Your task to perform on an android device: Open Android settings Image 0: 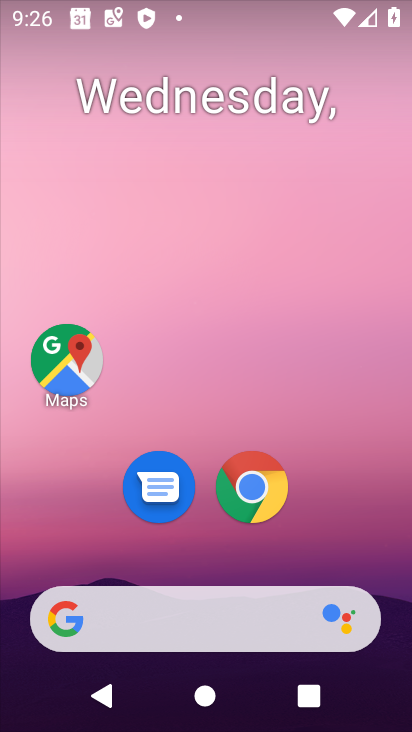
Step 0: press home button
Your task to perform on an android device: Open Android settings Image 1: 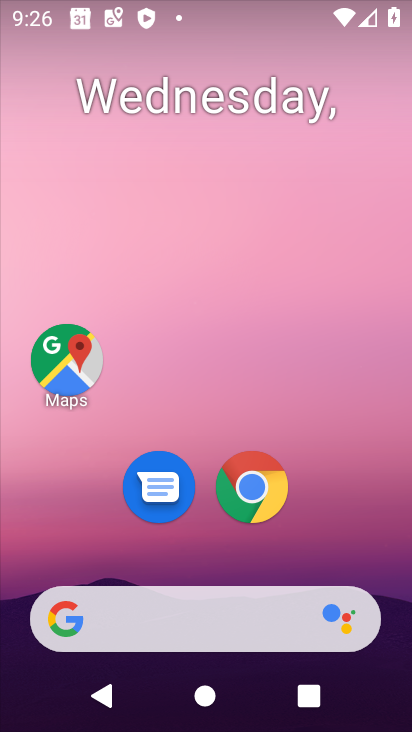
Step 1: drag from (314, 642) to (199, 194)
Your task to perform on an android device: Open Android settings Image 2: 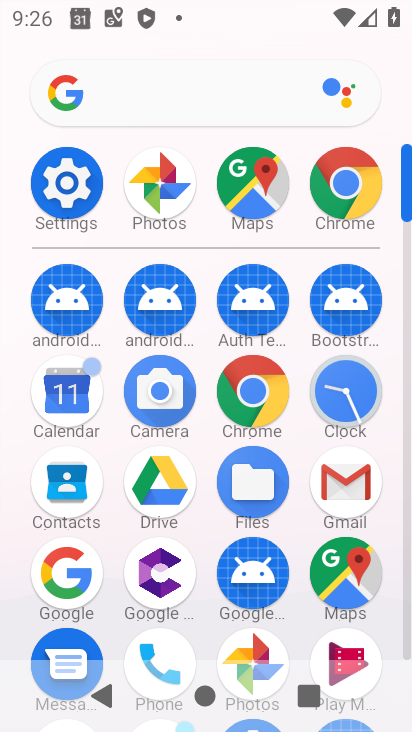
Step 2: click (34, 167)
Your task to perform on an android device: Open Android settings Image 3: 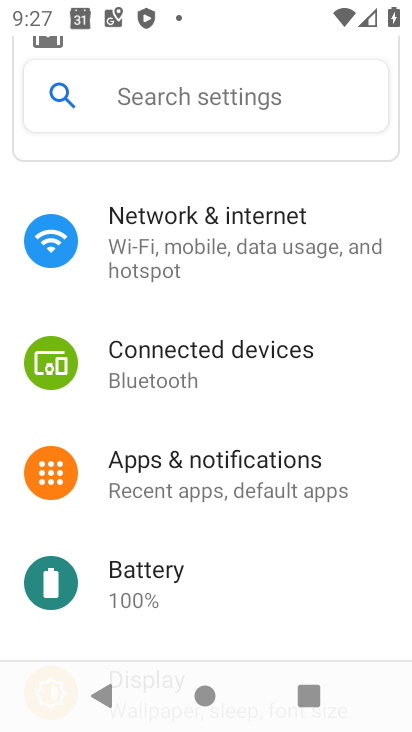
Step 3: click (165, 111)
Your task to perform on an android device: Open Android settings Image 4: 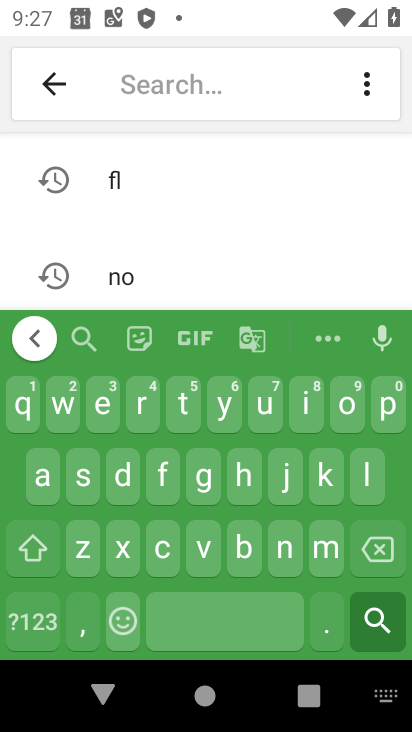
Step 4: click (39, 493)
Your task to perform on an android device: Open Android settings Image 5: 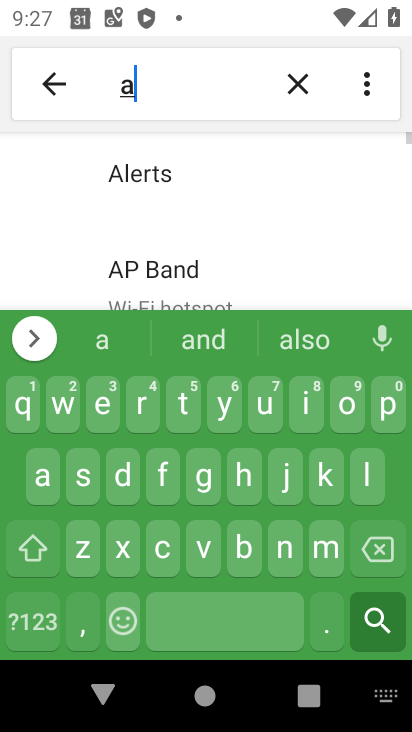
Step 5: click (281, 544)
Your task to perform on an android device: Open Android settings Image 6: 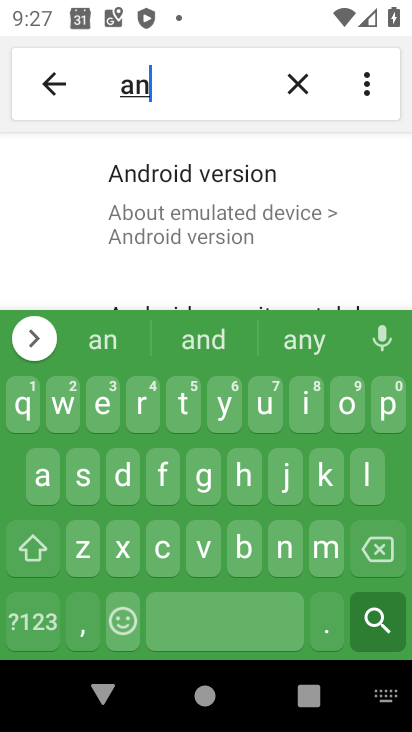
Step 6: click (254, 200)
Your task to perform on an android device: Open Android settings Image 7: 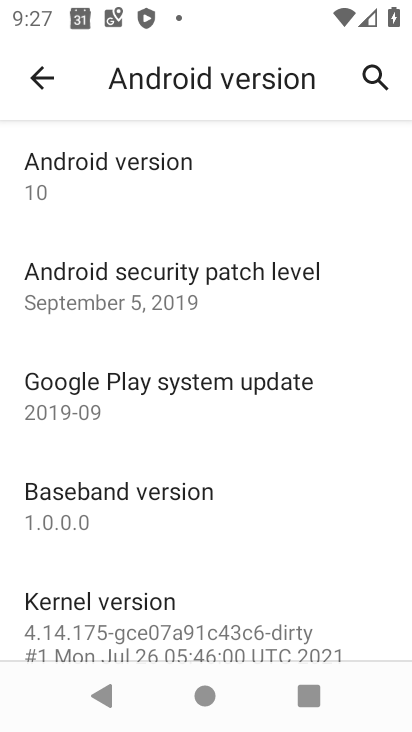
Step 7: click (144, 189)
Your task to perform on an android device: Open Android settings Image 8: 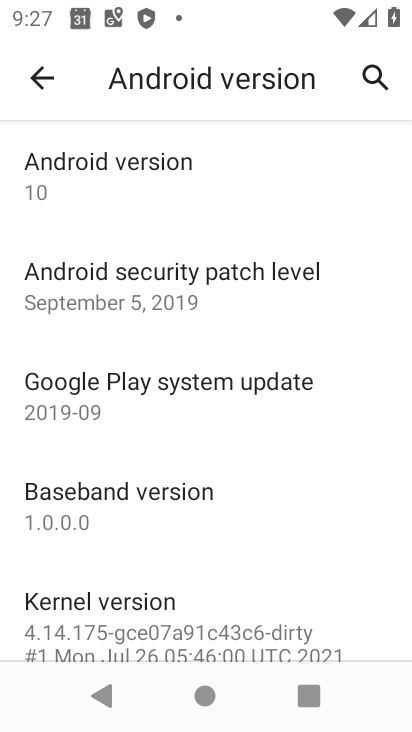
Step 8: task complete